Your task to perform on an android device: Turn off the flashlight Image 0: 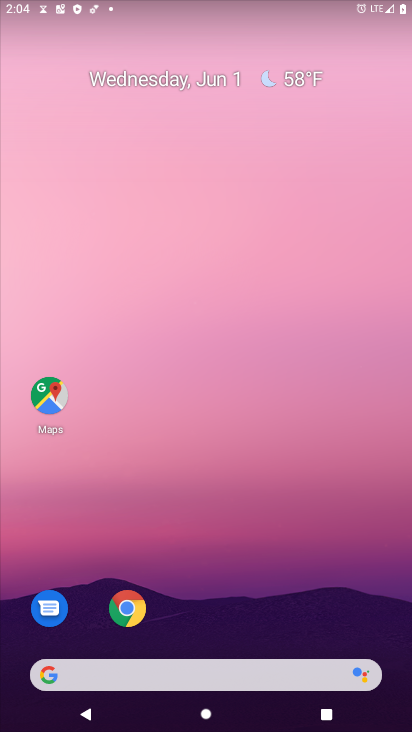
Step 0: drag from (286, 535) to (269, 98)
Your task to perform on an android device: Turn off the flashlight Image 1: 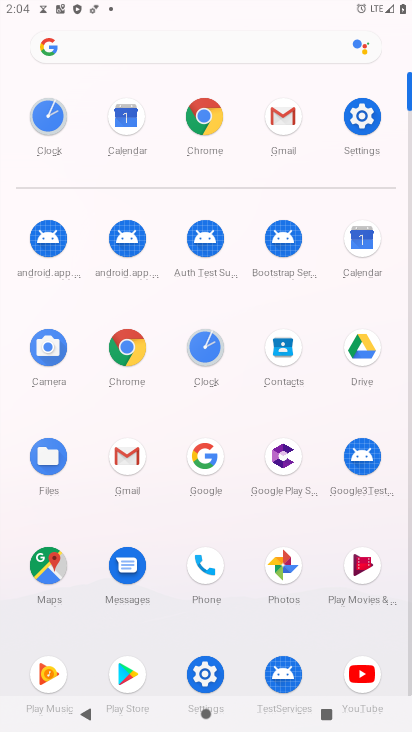
Step 1: click (362, 109)
Your task to perform on an android device: Turn off the flashlight Image 2: 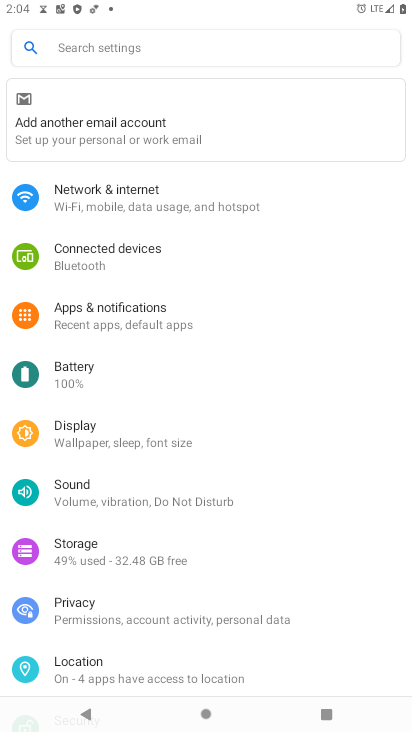
Step 2: drag from (183, 507) to (195, 180)
Your task to perform on an android device: Turn off the flashlight Image 3: 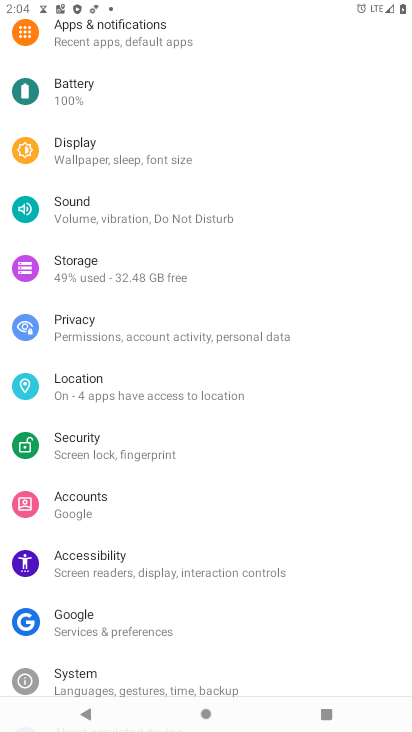
Step 3: drag from (138, 678) to (154, 421)
Your task to perform on an android device: Turn off the flashlight Image 4: 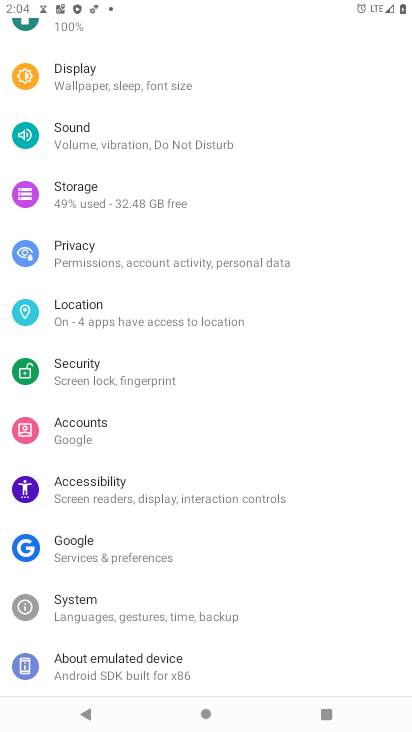
Step 4: drag from (232, 242) to (254, 584)
Your task to perform on an android device: Turn off the flashlight Image 5: 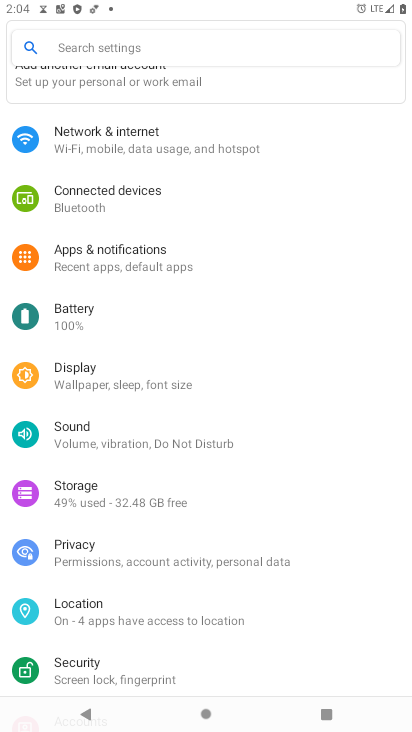
Step 5: click (217, 393)
Your task to perform on an android device: Turn off the flashlight Image 6: 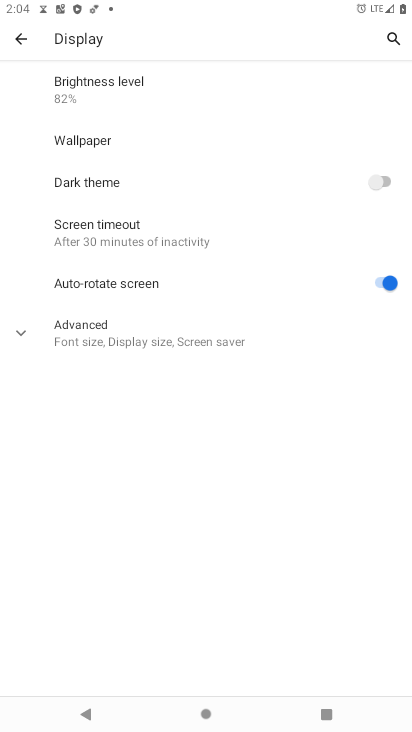
Step 6: click (90, 338)
Your task to perform on an android device: Turn off the flashlight Image 7: 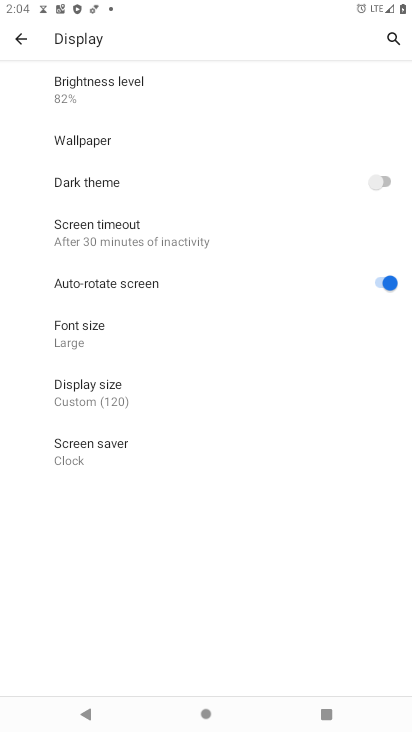
Step 7: task complete